Your task to perform on an android device: toggle pop-ups in chrome Image 0: 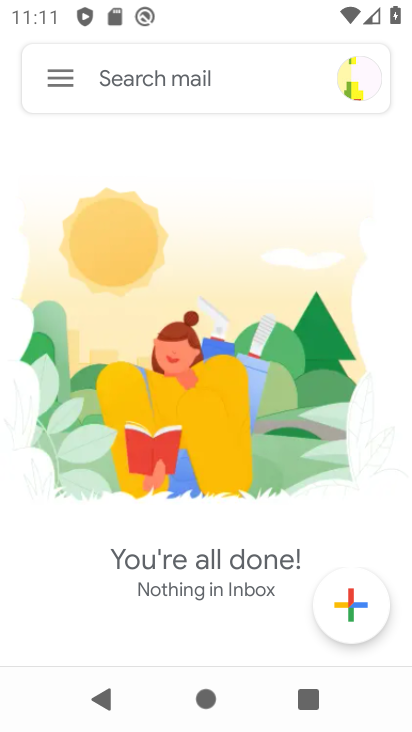
Step 0: press home button
Your task to perform on an android device: toggle pop-ups in chrome Image 1: 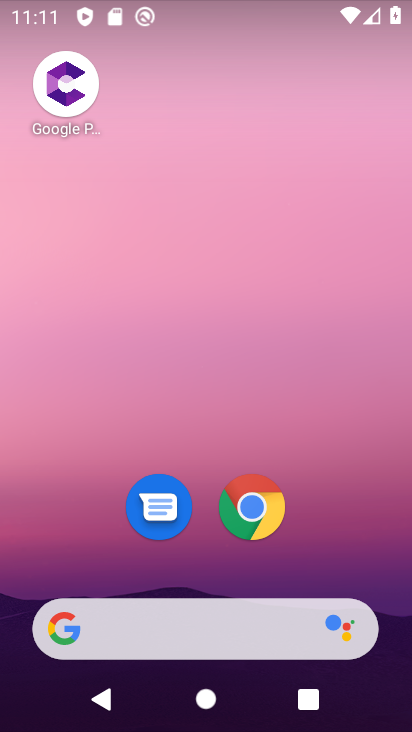
Step 1: click (254, 523)
Your task to perform on an android device: toggle pop-ups in chrome Image 2: 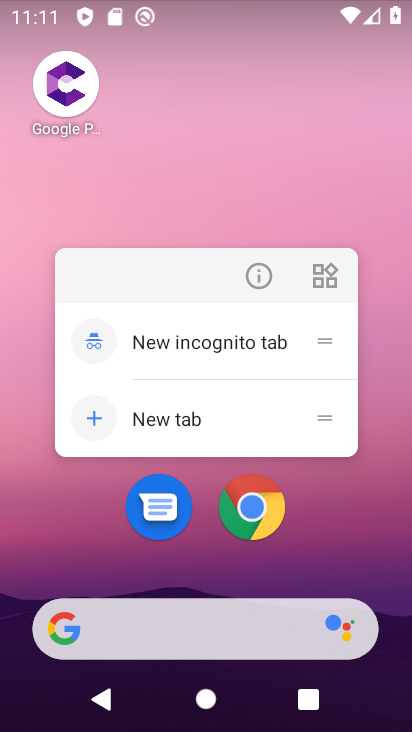
Step 2: click (253, 522)
Your task to perform on an android device: toggle pop-ups in chrome Image 3: 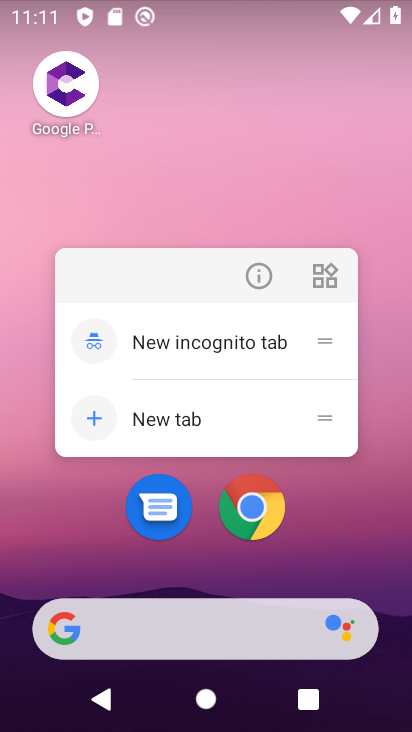
Step 3: click (256, 528)
Your task to perform on an android device: toggle pop-ups in chrome Image 4: 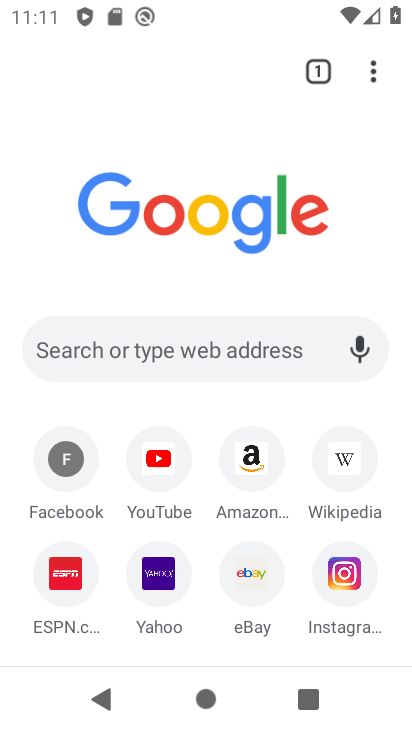
Step 4: click (375, 71)
Your task to perform on an android device: toggle pop-ups in chrome Image 5: 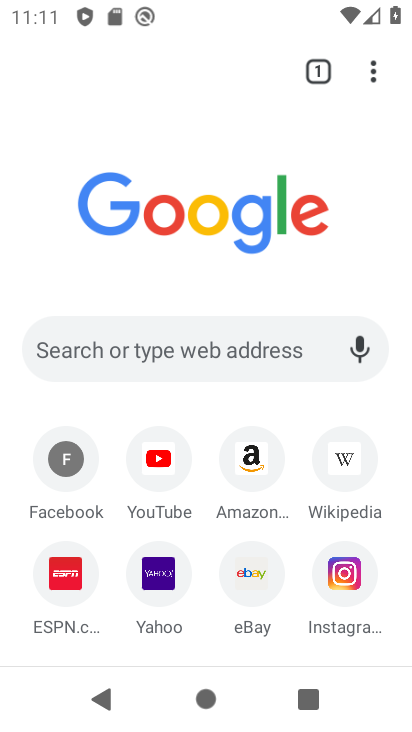
Step 5: click (374, 79)
Your task to perform on an android device: toggle pop-ups in chrome Image 6: 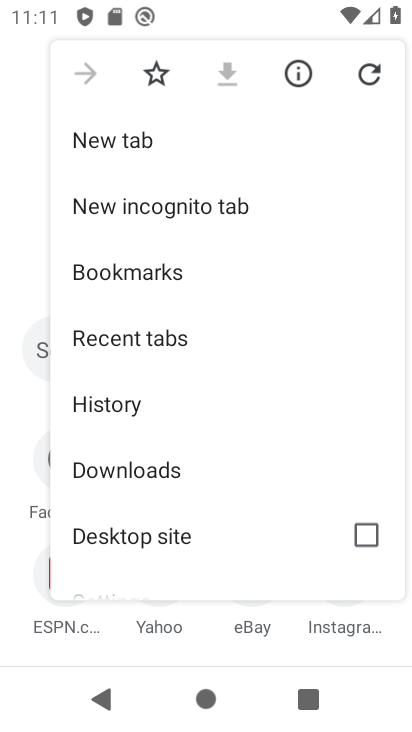
Step 6: drag from (180, 554) to (184, 222)
Your task to perform on an android device: toggle pop-ups in chrome Image 7: 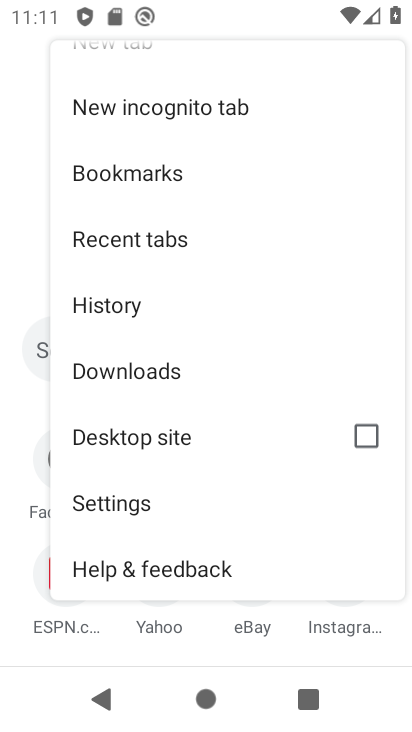
Step 7: click (160, 503)
Your task to perform on an android device: toggle pop-ups in chrome Image 8: 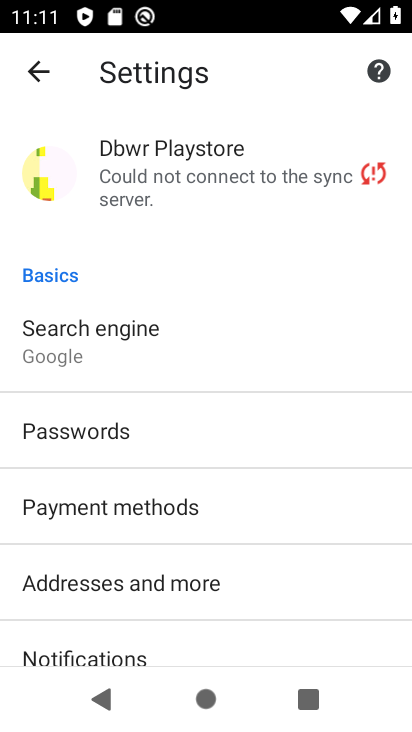
Step 8: drag from (177, 555) to (165, 209)
Your task to perform on an android device: toggle pop-ups in chrome Image 9: 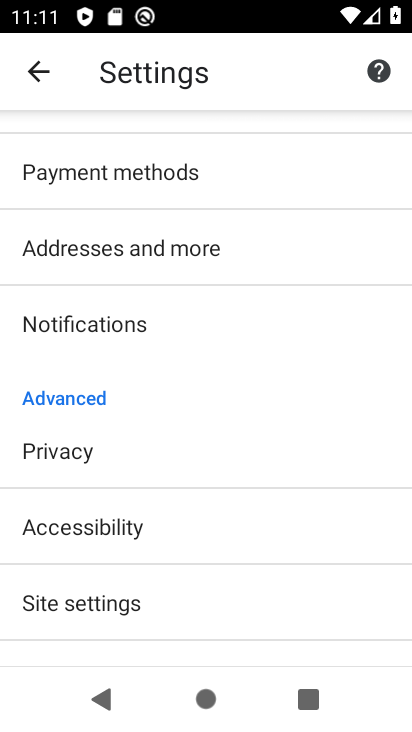
Step 9: click (137, 601)
Your task to perform on an android device: toggle pop-ups in chrome Image 10: 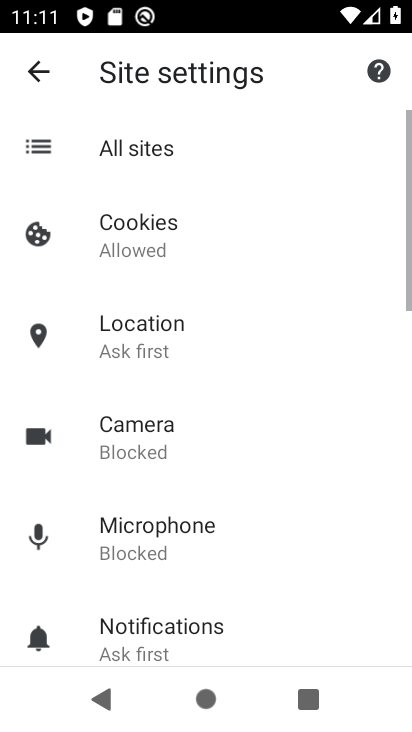
Step 10: drag from (157, 577) to (166, 292)
Your task to perform on an android device: toggle pop-ups in chrome Image 11: 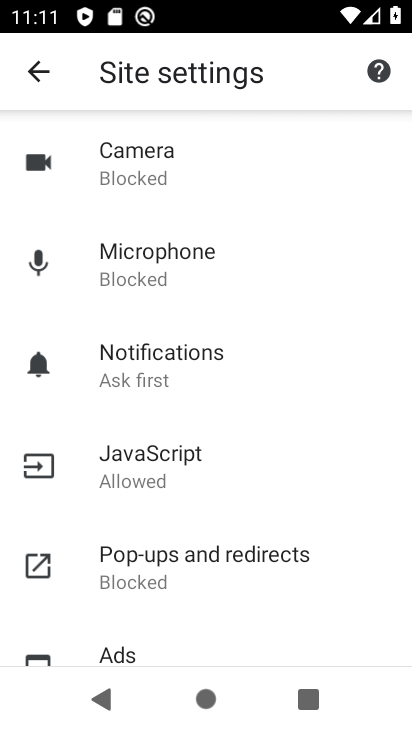
Step 11: click (191, 579)
Your task to perform on an android device: toggle pop-ups in chrome Image 12: 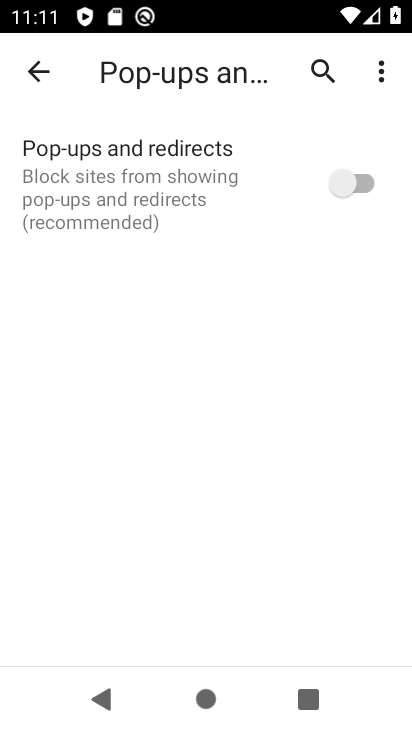
Step 12: click (354, 190)
Your task to perform on an android device: toggle pop-ups in chrome Image 13: 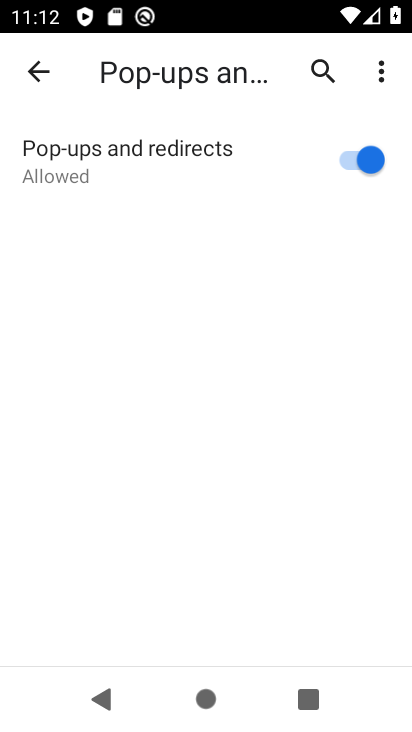
Step 13: task complete